Your task to perform on an android device: Open the phone app and click the voicemail tab. Image 0: 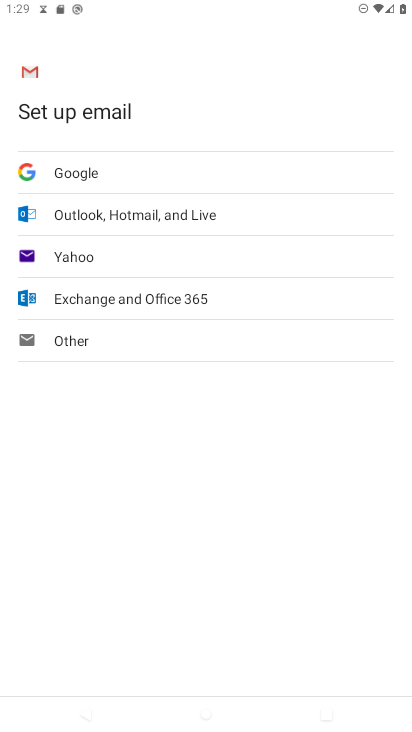
Step 0: press home button
Your task to perform on an android device: Open the phone app and click the voicemail tab. Image 1: 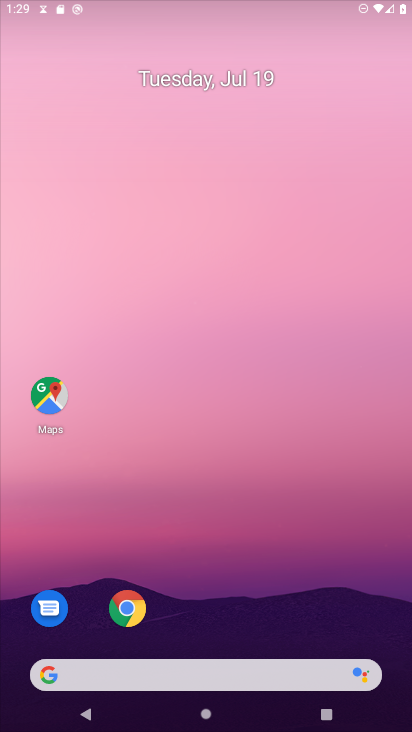
Step 1: drag from (278, 646) to (320, 39)
Your task to perform on an android device: Open the phone app and click the voicemail tab. Image 2: 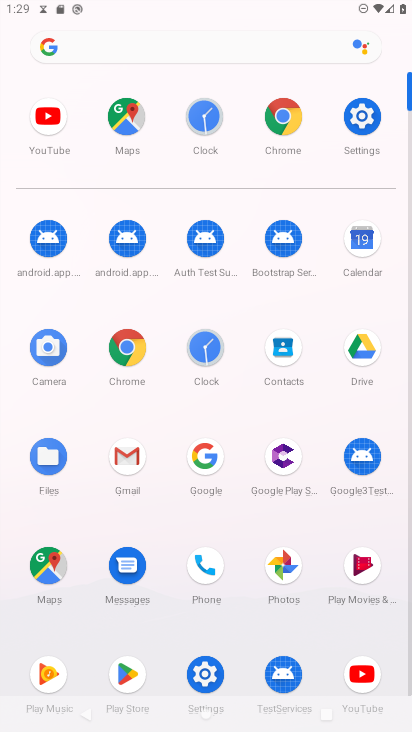
Step 2: click (199, 561)
Your task to perform on an android device: Open the phone app and click the voicemail tab. Image 3: 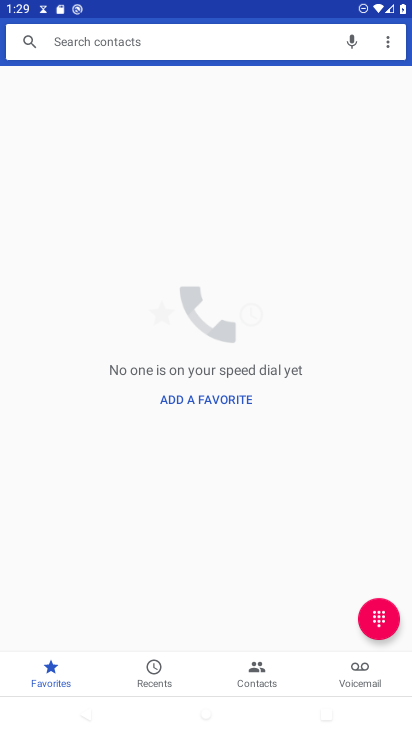
Step 3: click (350, 677)
Your task to perform on an android device: Open the phone app and click the voicemail tab. Image 4: 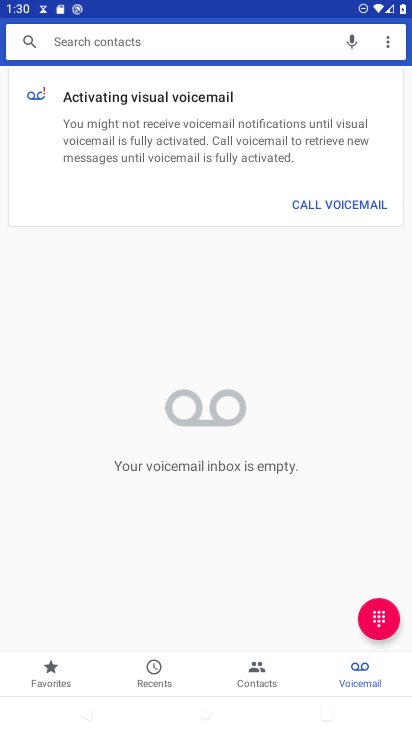
Step 4: task complete